Your task to perform on an android device: Open calendar and show me the fourth week of next month Image 0: 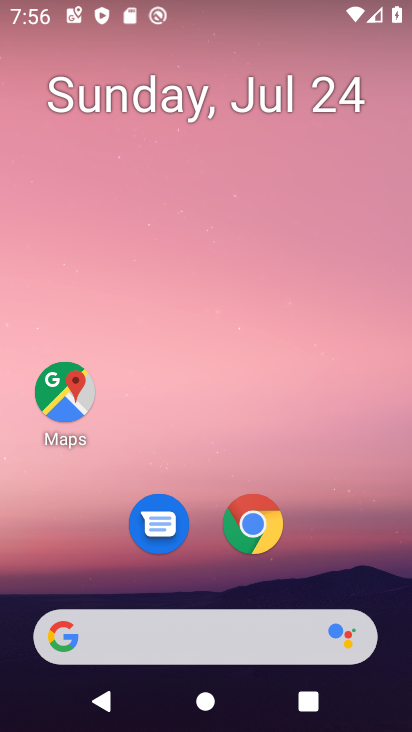
Step 0: press home button
Your task to perform on an android device: Open calendar and show me the fourth week of next month Image 1: 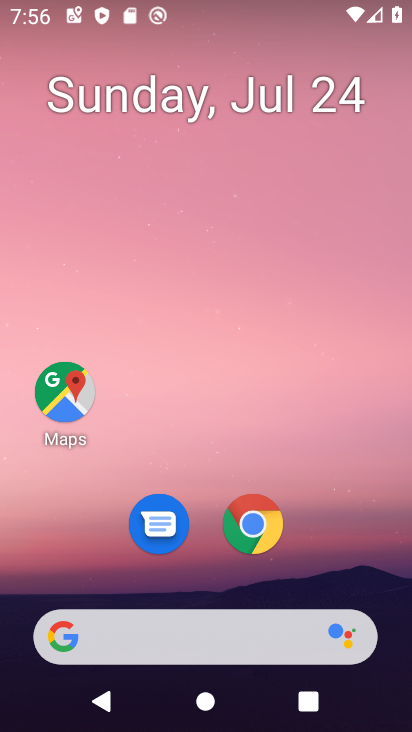
Step 1: drag from (167, 580) to (312, 85)
Your task to perform on an android device: Open calendar and show me the fourth week of next month Image 2: 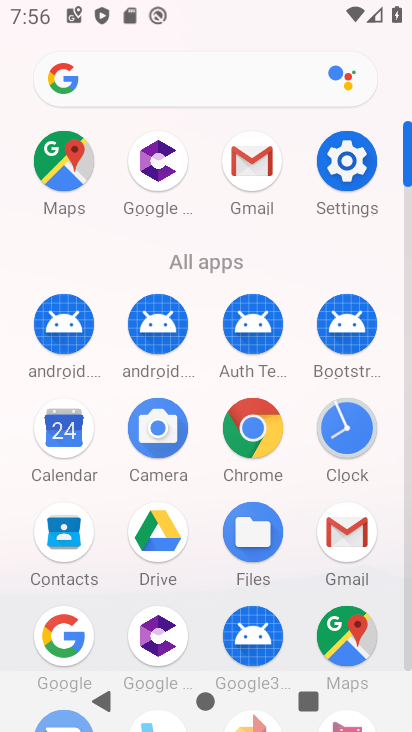
Step 2: click (71, 447)
Your task to perform on an android device: Open calendar and show me the fourth week of next month Image 3: 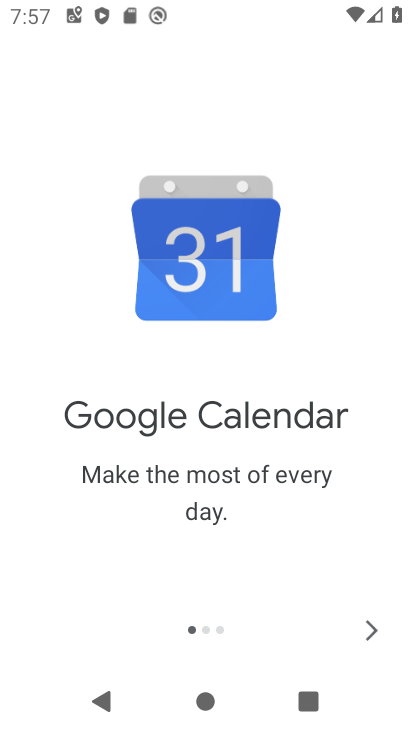
Step 3: click (368, 628)
Your task to perform on an android device: Open calendar and show me the fourth week of next month Image 4: 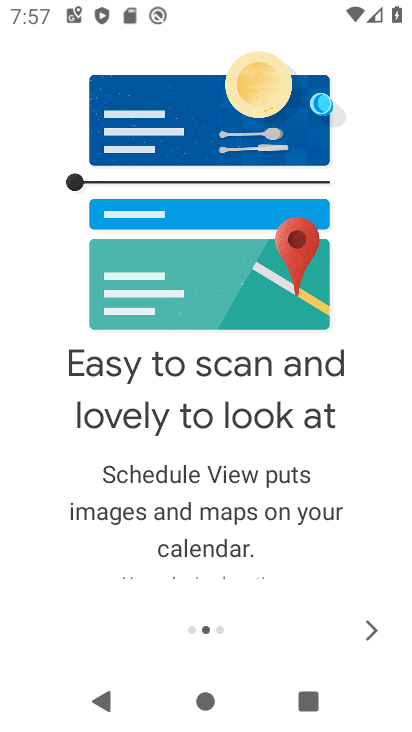
Step 4: click (375, 627)
Your task to perform on an android device: Open calendar and show me the fourth week of next month Image 5: 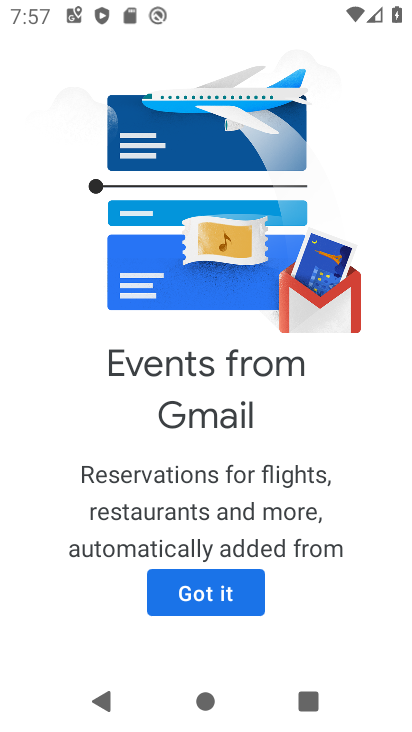
Step 5: click (184, 593)
Your task to perform on an android device: Open calendar and show me the fourth week of next month Image 6: 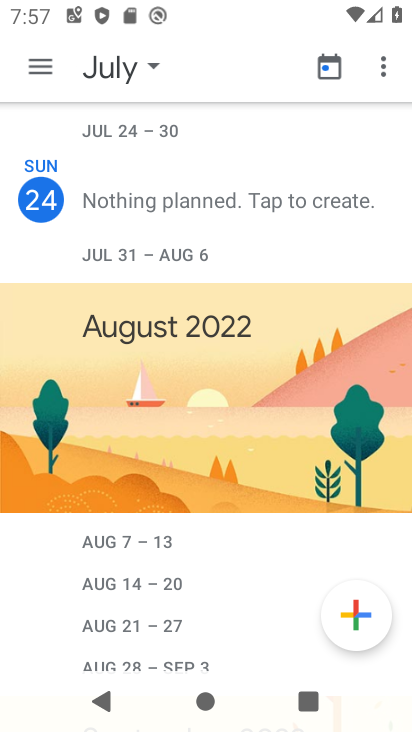
Step 6: click (121, 68)
Your task to perform on an android device: Open calendar and show me the fourth week of next month Image 7: 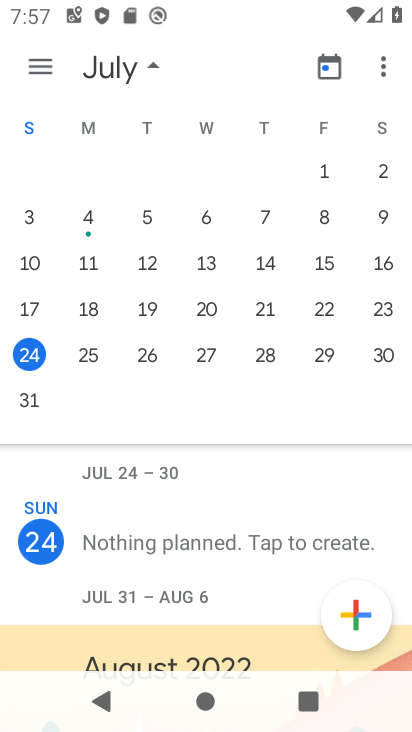
Step 7: drag from (375, 276) to (0, 253)
Your task to perform on an android device: Open calendar and show me the fourth week of next month Image 8: 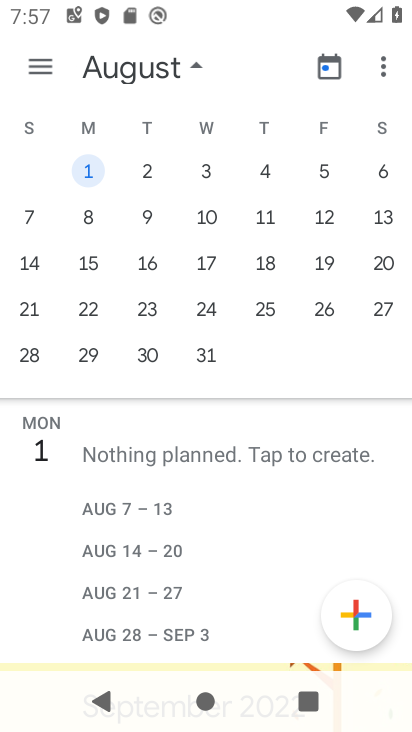
Step 8: click (28, 311)
Your task to perform on an android device: Open calendar and show me the fourth week of next month Image 9: 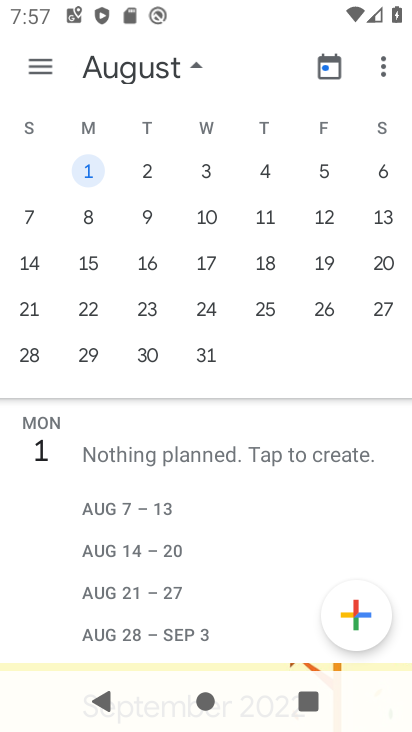
Step 9: click (30, 312)
Your task to perform on an android device: Open calendar and show me the fourth week of next month Image 10: 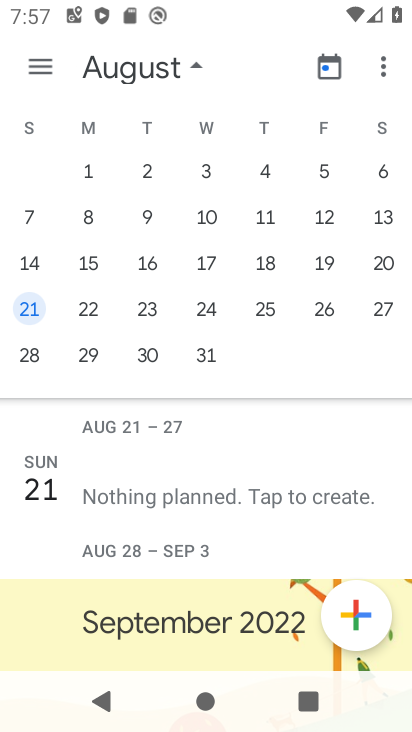
Step 10: click (44, 65)
Your task to perform on an android device: Open calendar and show me the fourth week of next month Image 11: 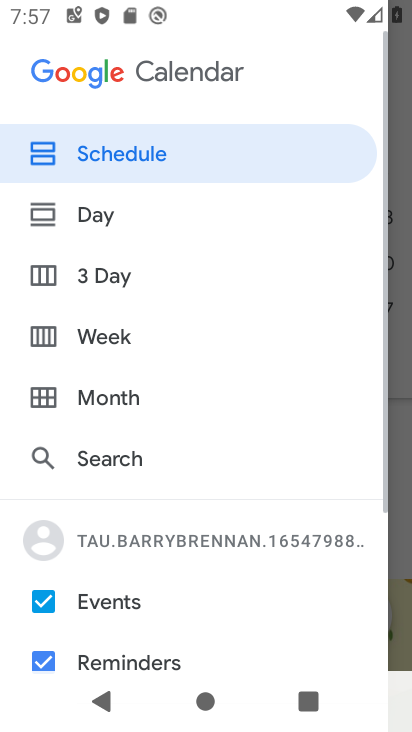
Step 11: click (113, 331)
Your task to perform on an android device: Open calendar and show me the fourth week of next month Image 12: 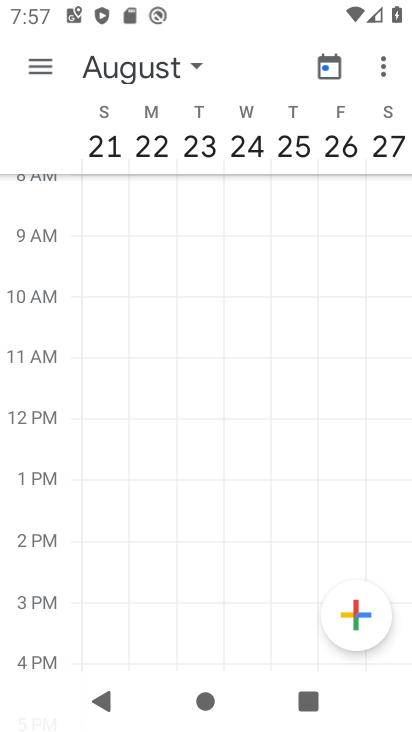
Step 12: task complete